Your task to perform on an android device: turn off wifi Image 0: 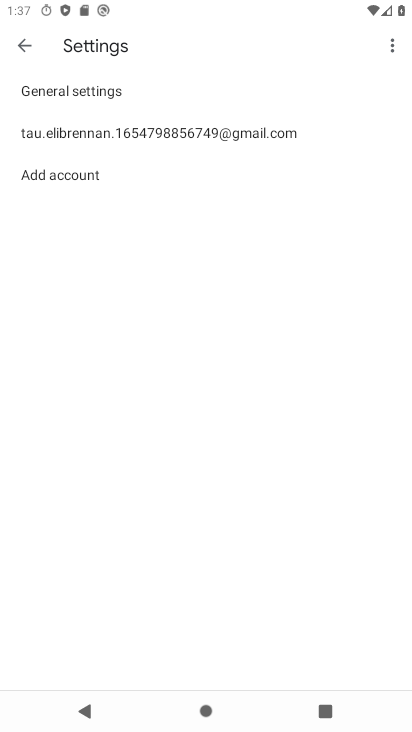
Step 0: press home button
Your task to perform on an android device: turn off wifi Image 1: 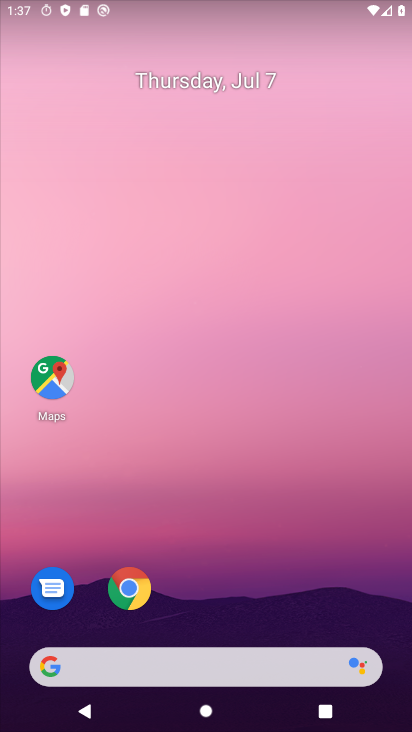
Step 1: drag from (173, 657) to (182, 75)
Your task to perform on an android device: turn off wifi Image 2: 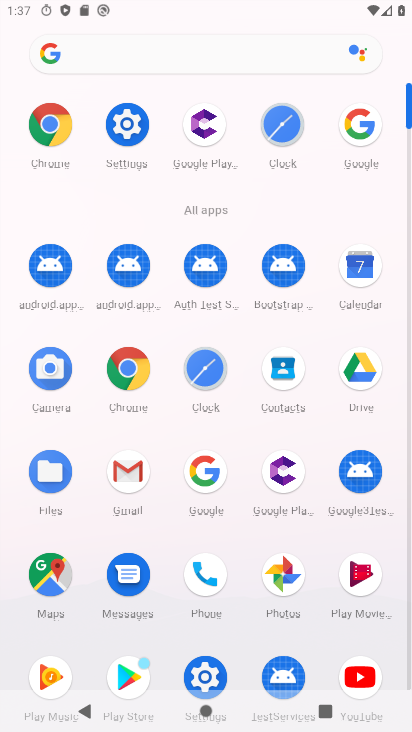
Step 2: click (132, 116)
Your task to perform on an android device: turn off wifi Image 3: 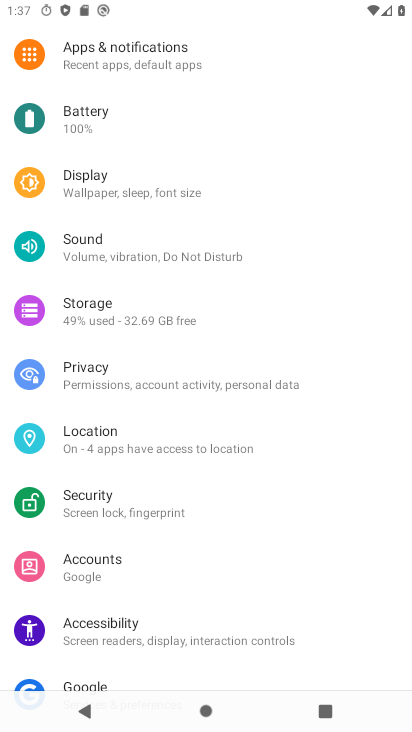
Step 3: drag from (151, 60) to (209, 394)
Your task to perform on an android device: turn off wifi Image 4: 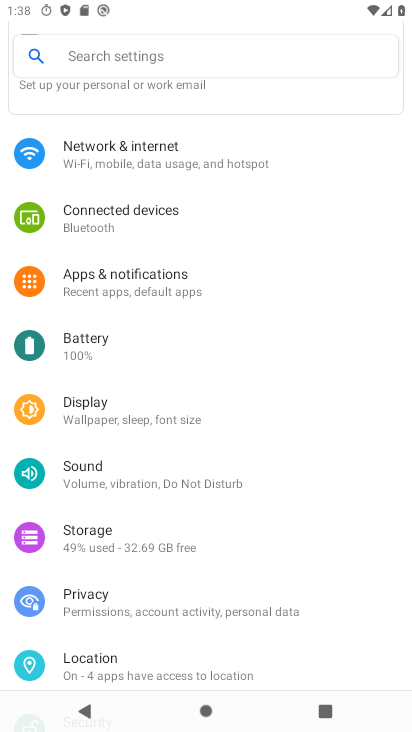
Step 4: click (124, 159)
Your task to perform on an android device: turn off wifi Image 5: 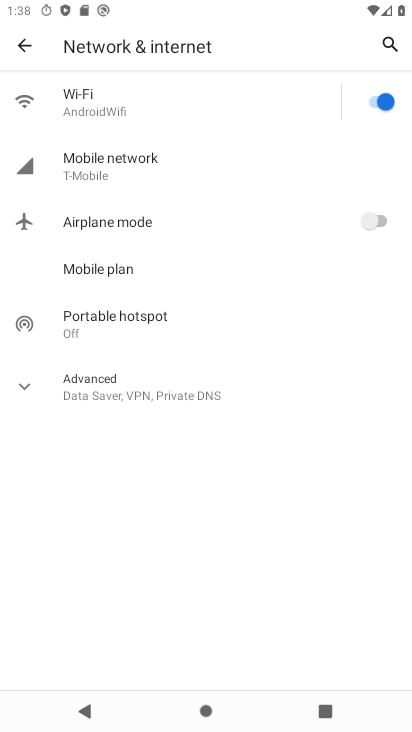
Step 5: click (378, 101)
Your task to perform on an android device: turn off wifi Image 6: 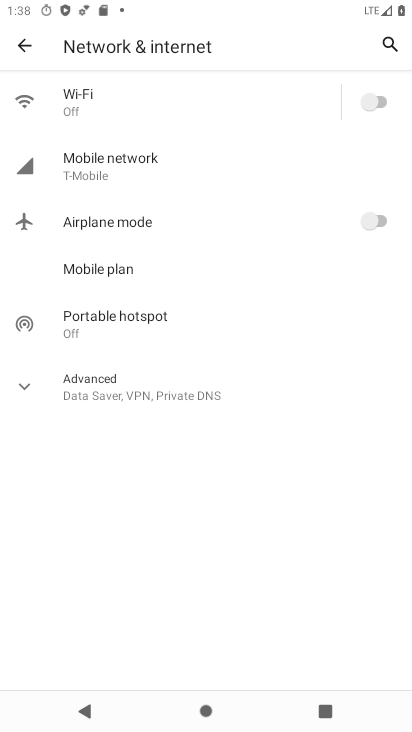
Step 6: task complete